Your task to perform on an android device: set the stopwatch Image 0: 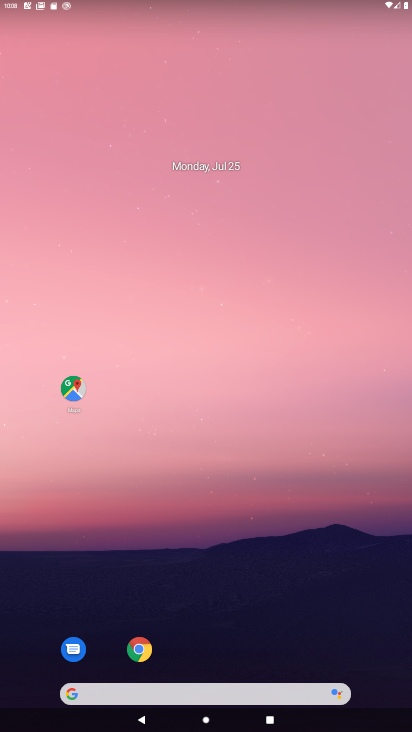
Step 0: drag from (371, 659) to (329, 174)
Your task to perform on an android device: set the stopwatch Image 1: 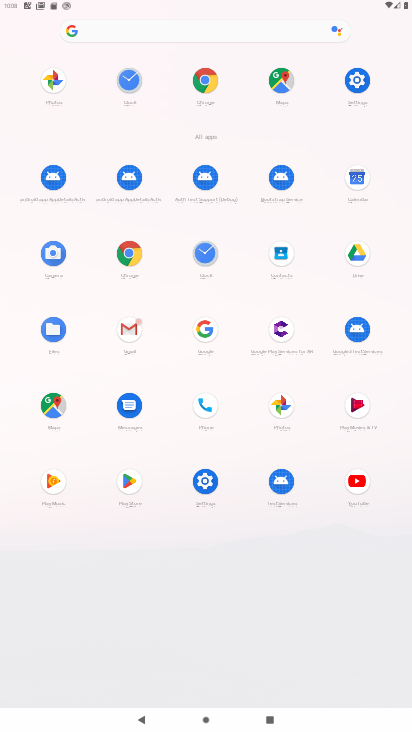
Step 1: click (205, 253)
Your task to perform on an android device: set the stopwatch Image 2: 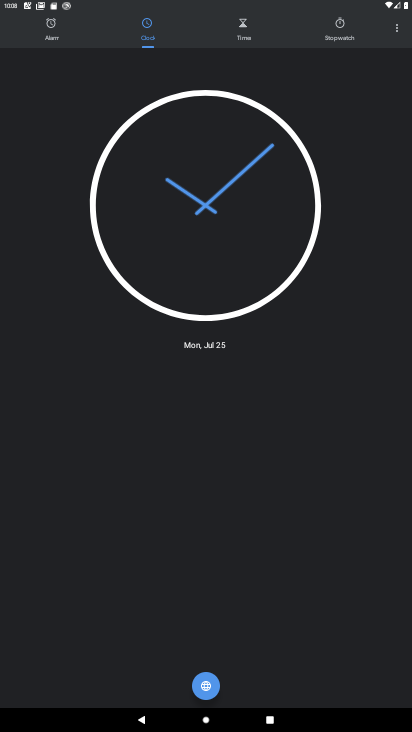
Step 2: click (340, 28)
Your task to perform on an android device: set the stopwatch Image 3: 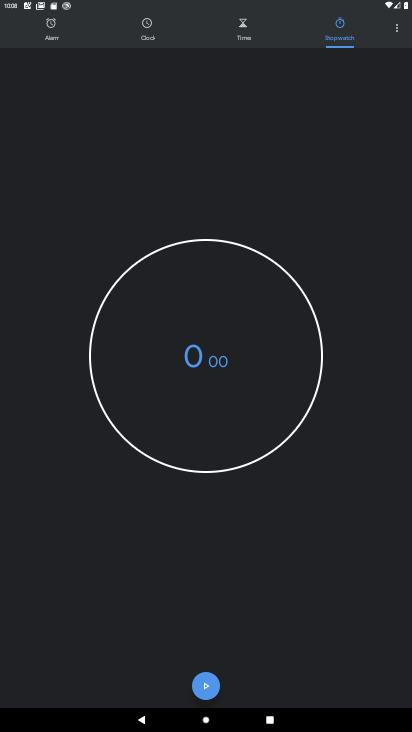
Step 3: task complete